Your task to perform on an android device: see creations saved in the google photos Image 0: 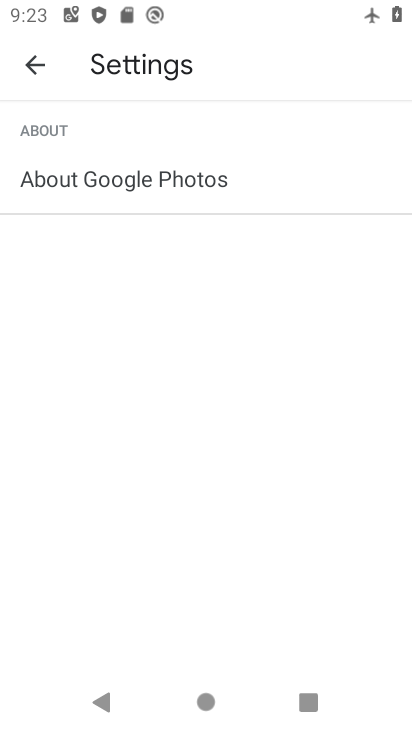
Step 0: press home button
Your task to perform on an android device: see creations saved in the google photos Image 1: 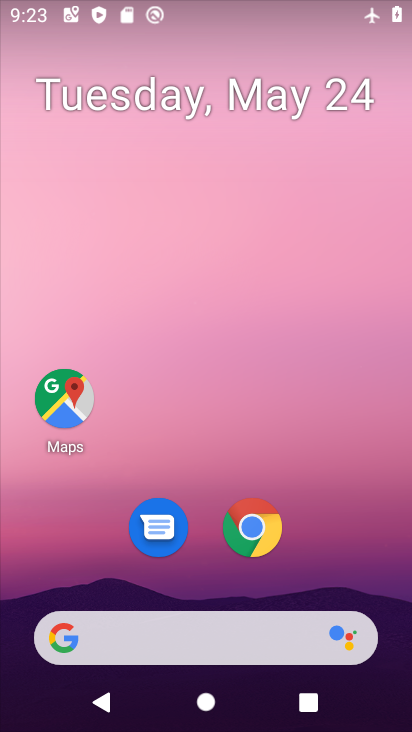
Step 1: drag from (390, 695) to (373, 108)
Your task to perform on an android device: see creations saved in the google photos Image 2: 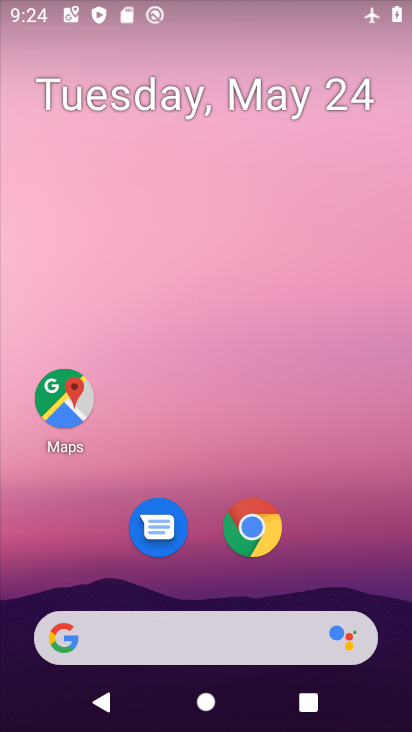
Step 2: drag from (391, 719) to (359, 253)
Your task to perform on an android device: see creations saved in the google photos Image 3: 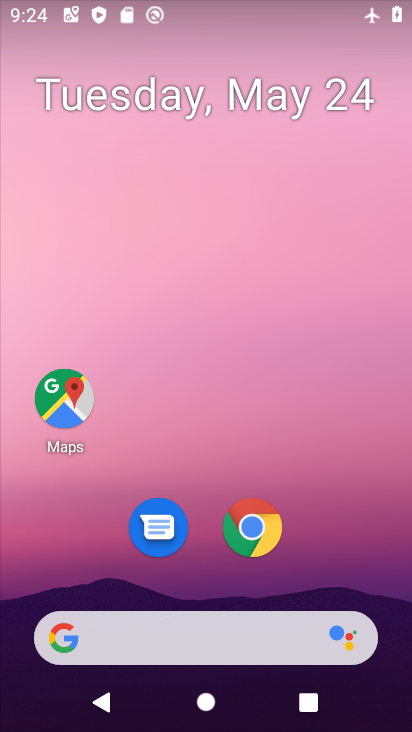
Step 3: drag from (393, 713) to (349, 171)
Your task to perform on an android device: see creations saved in the google photos Image 4: 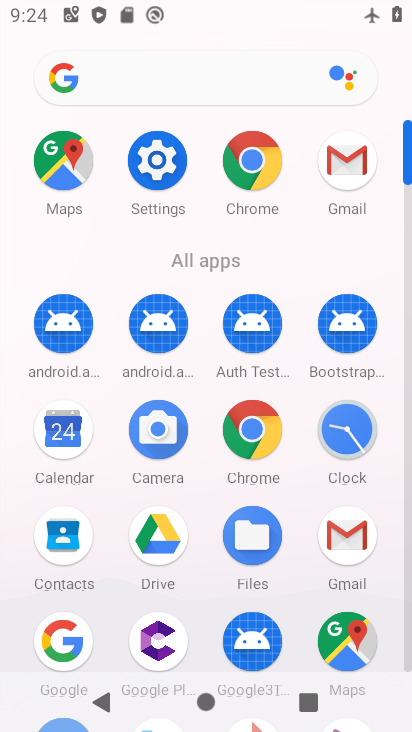
Step 4: drag from (403, 123) to (401, 48)
Your task to perform on an android device: see creations saved in the google photos Image 5: 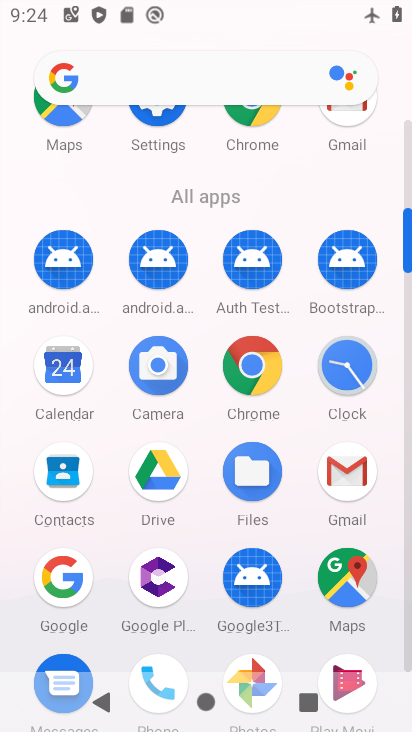
Step 5: drag from (405, 212) to (389, 109)
Your task to perform on an android device: see creations saved in the google photos Image 6: 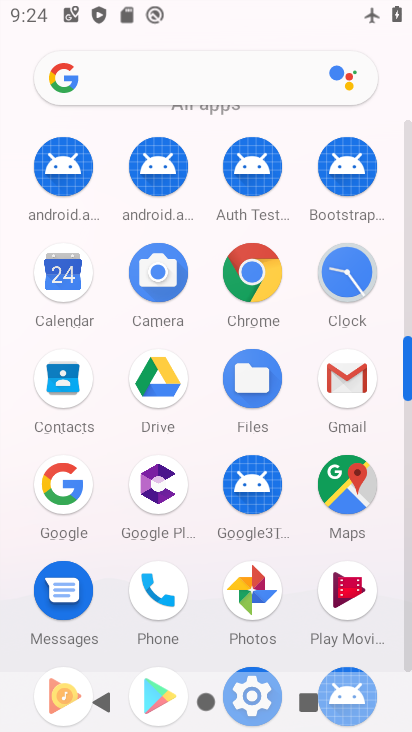
Step 6: click (244, 584)
Your task to perform on an android device: see creations saved in the google photos Image 7: 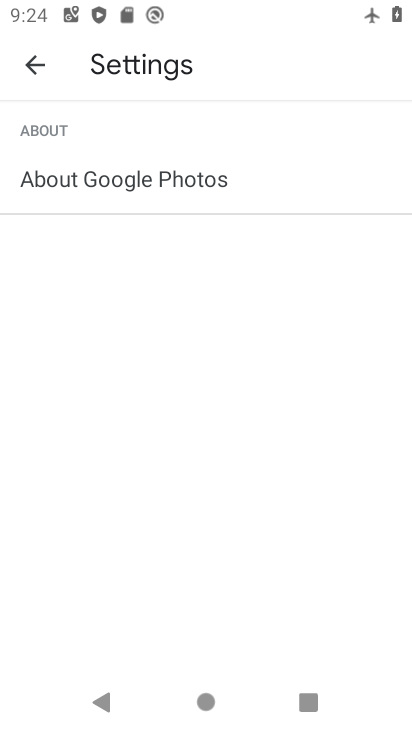
Step 7: task complete